Your task to perform on an android device: Open settings Image 0: 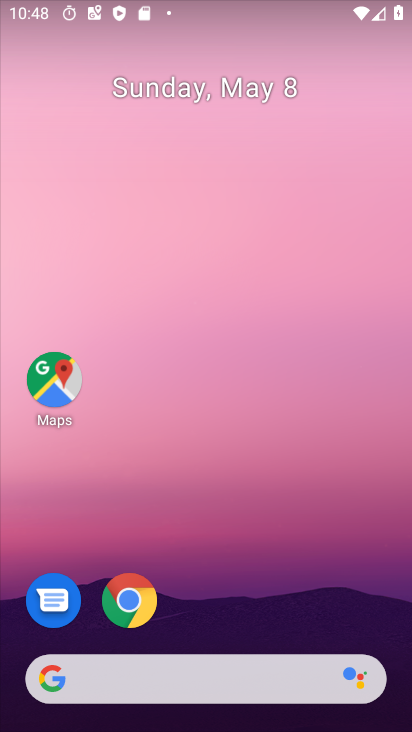
Step 0: drag from (20, 570) to (238, 205)
Your task to perform on an android device: Open settings Image 1: 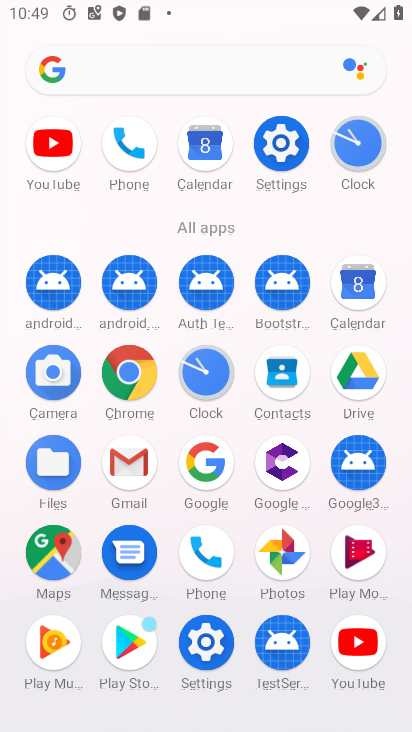
Step 1: click (270, 138)
Your task to perform on an android device: Open settings Image 2: 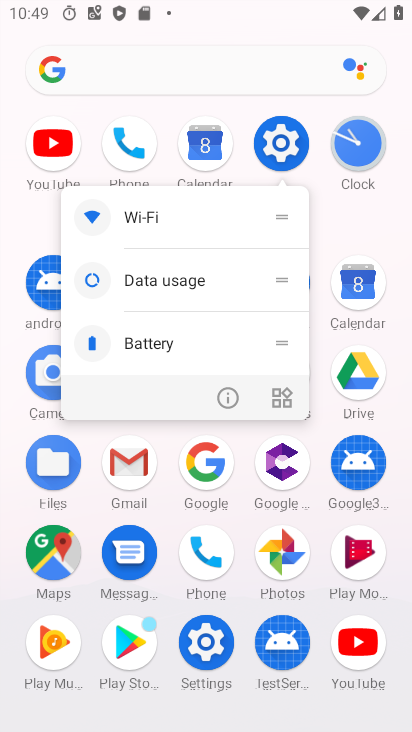
Step 2: click (281, 128)
Your task to perform on an android device: Open settings Image 3: 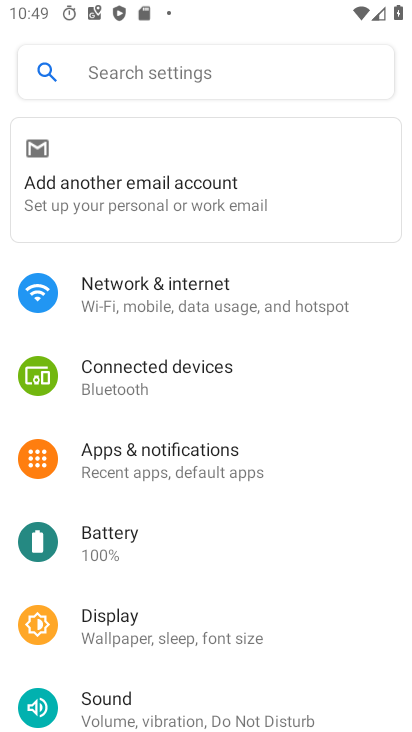
Step 3: task complete